Your task to perform on an android device: Open Google Image 0: 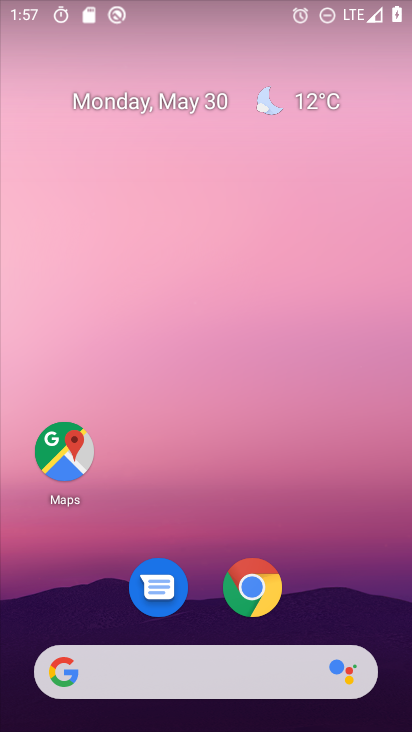
Step 0: drag from (355, 576) to (308, 130)
Your task to perform on an android device: Open Google Image 1: 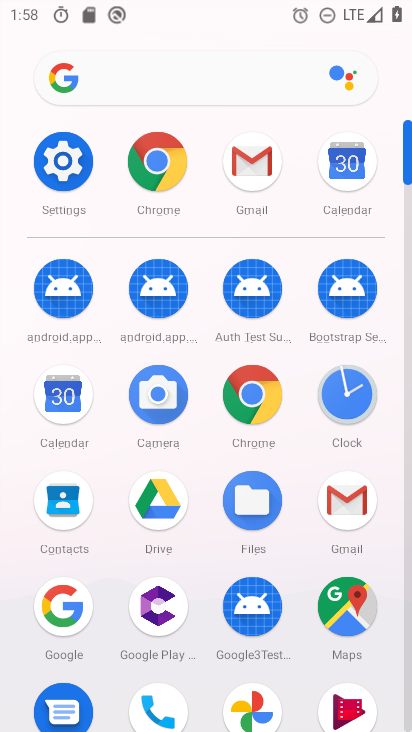
Step 1: click (56, 598)
Your task to perform on an android device: Open Google Image 2: 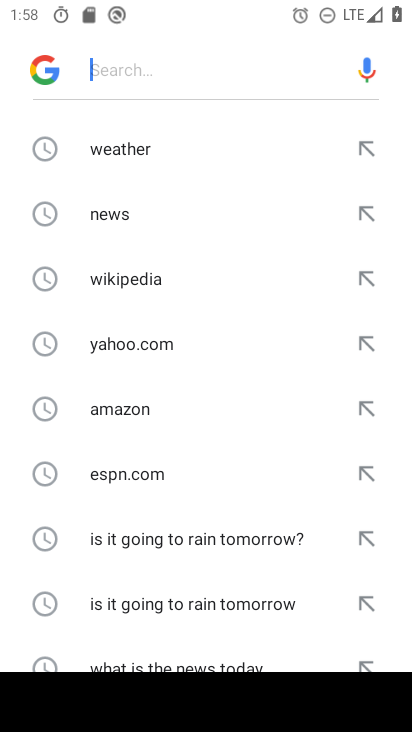
Step 2: task complete